Your task to perform on an android device: open app "Google Play services" Image 0: 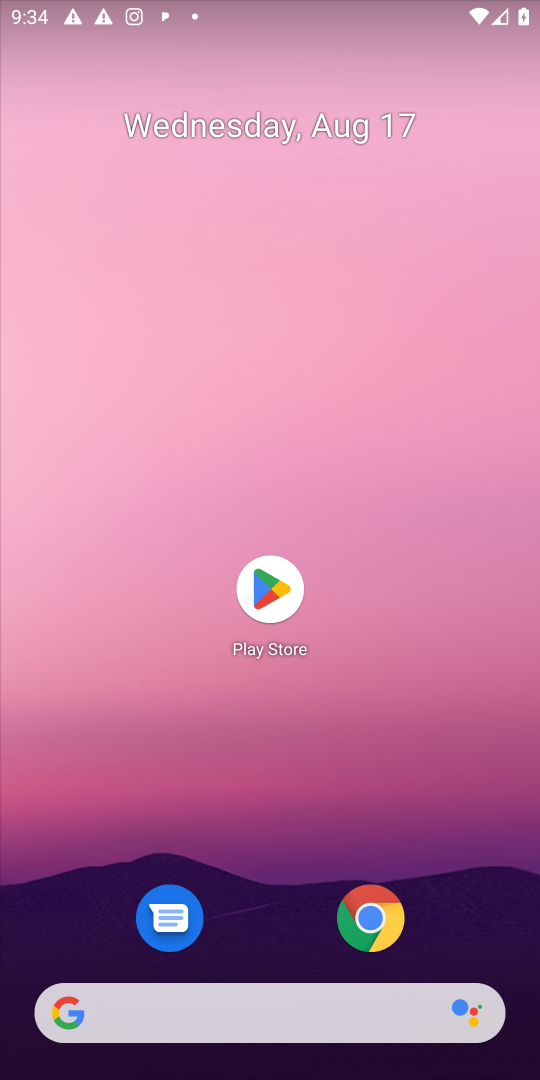
Step 0: click (261, 589)
Your task to perform on an android device: open app "Google Play services" Image 1: 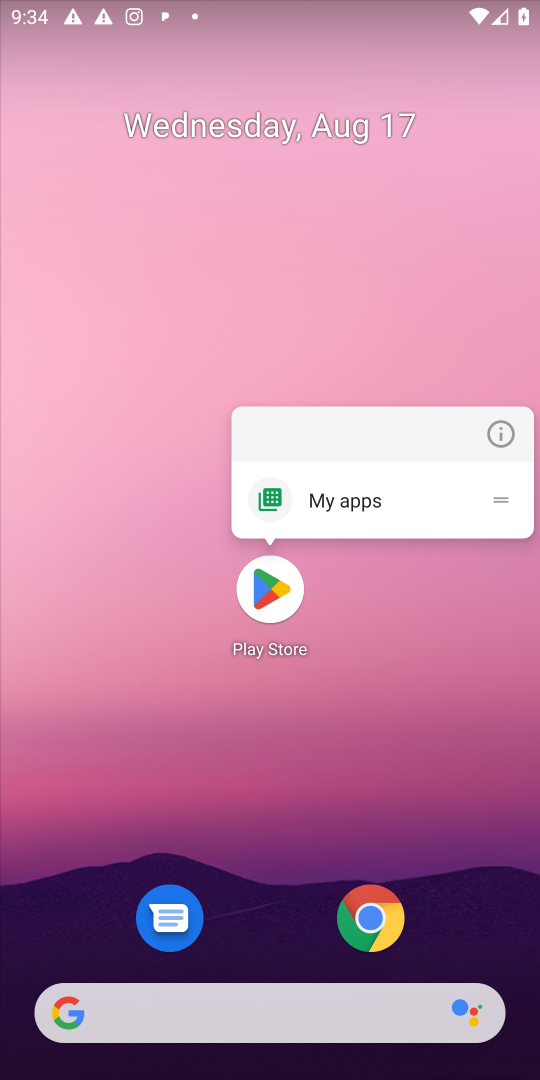
Step 1: click (272, 591)
Your task to perform on an android device: open app "Google Play services" Image 2: 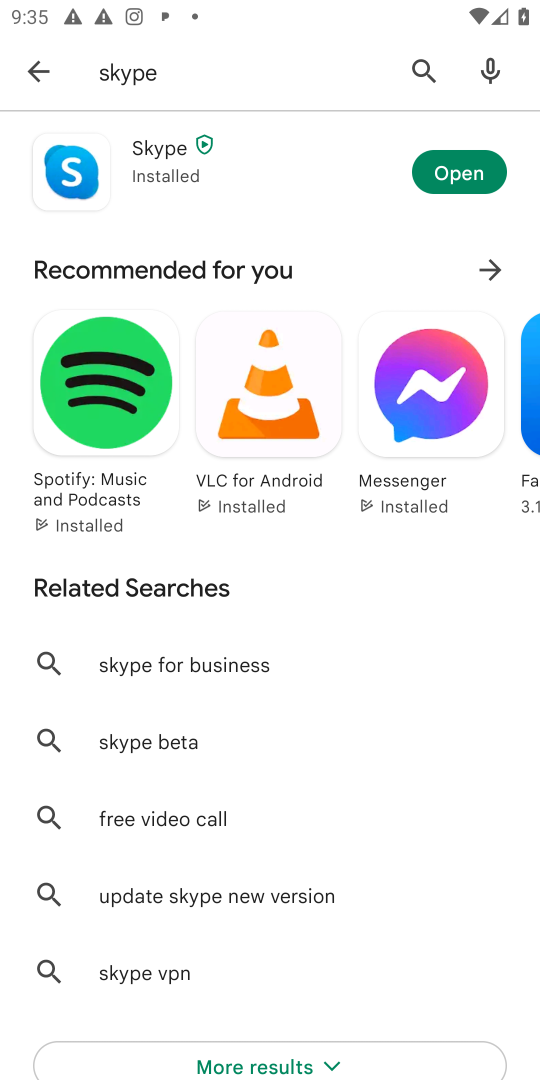
Step 2: click (421, 69)
Your task to perform on an android device: open app "Google Play services" Image 3: 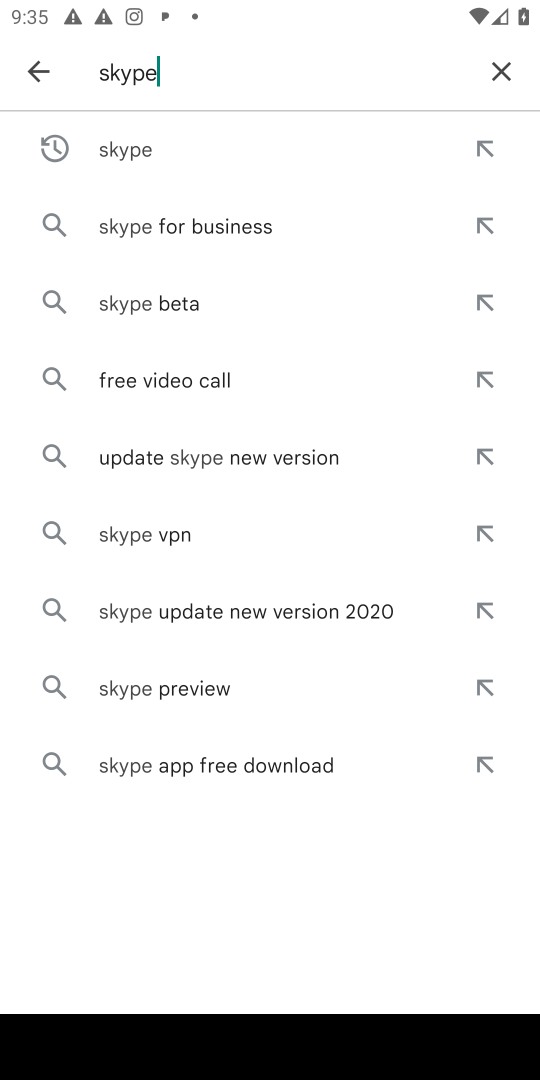
Step 3: click (497, 63)
Your task to perform on an android device: open app "Google Play services" Image 4: 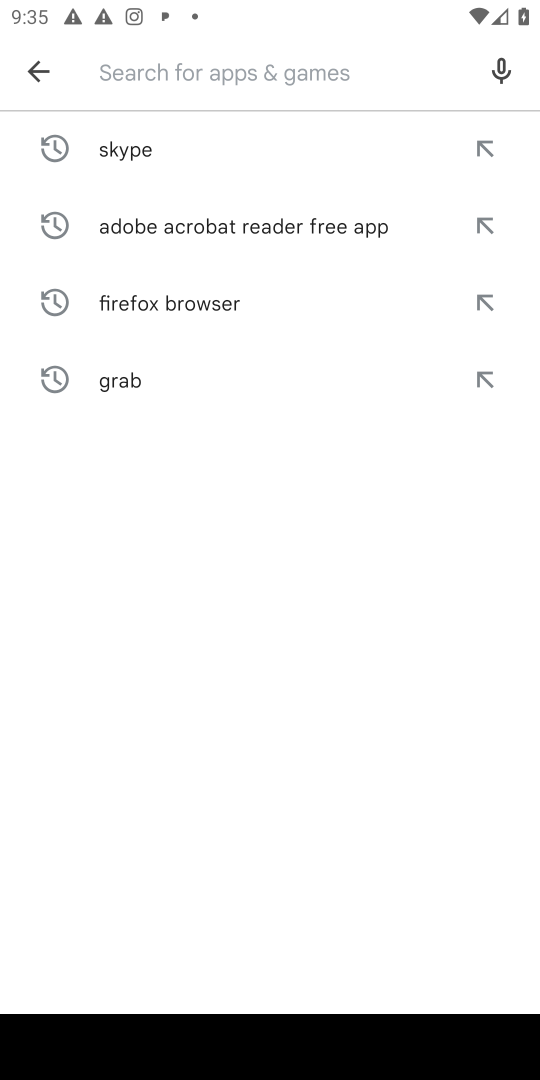
Step 4: type "Google Play services"
Your task to perform on an android device: open app "Google Play services" Image 5: 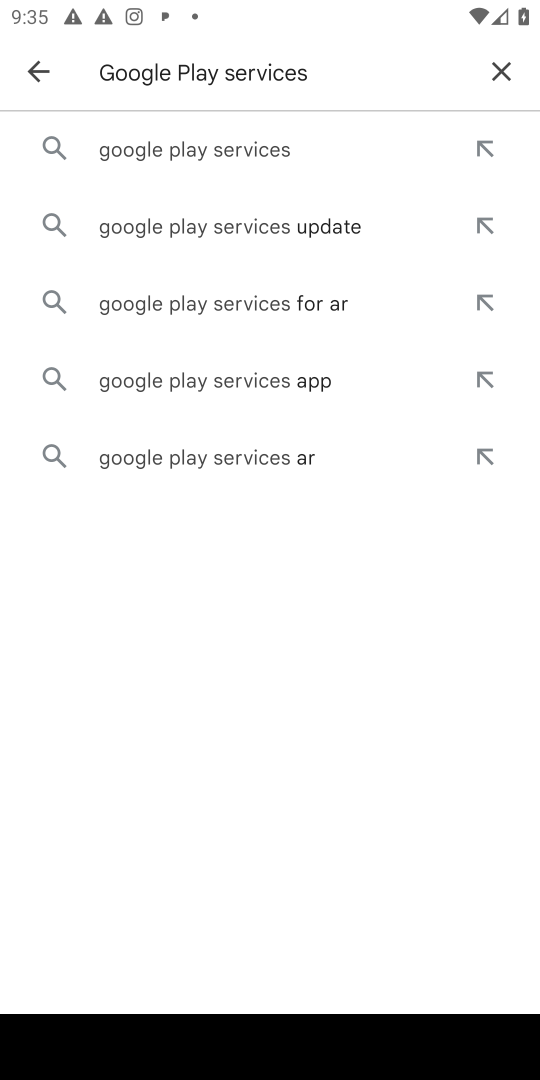
Step 5: click (191, 153)
Your task to perform on an android device: open app "Google Play services" Image 6: 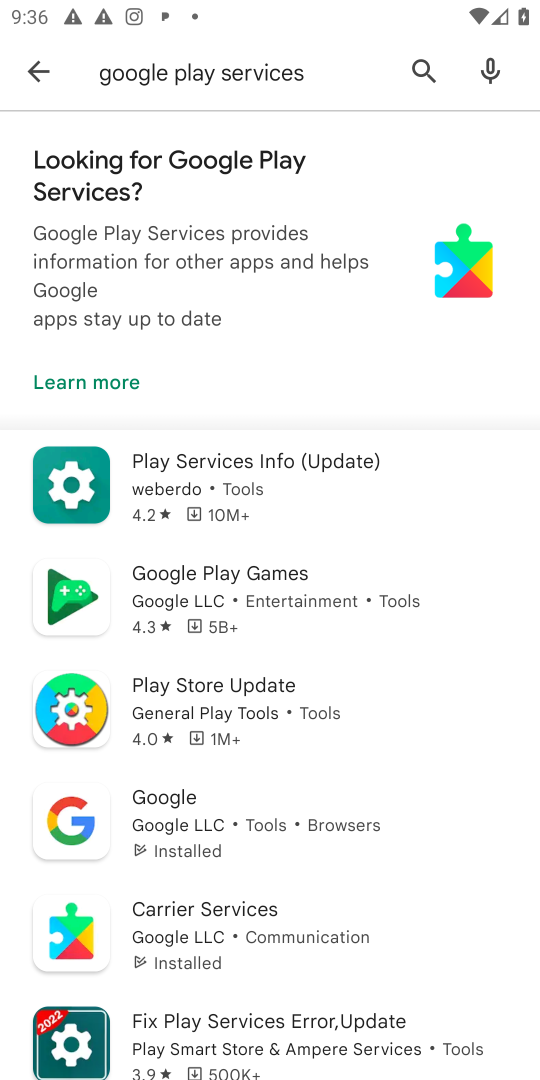
Step 6: task complete